Your task to perform on an android device: toggle wifi Image 0: 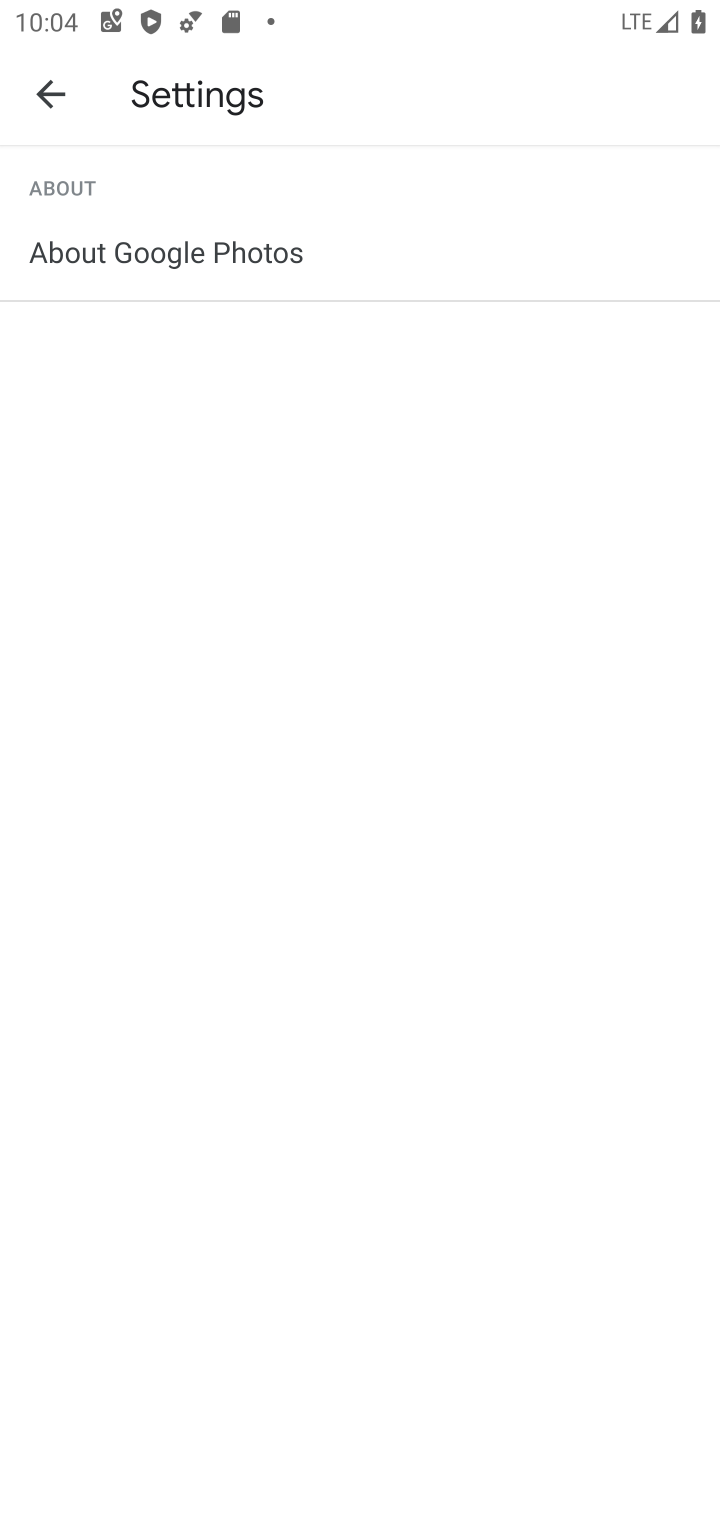
Step 0: press home button
Your task to perform on an android device: toggle wifi Image 1: 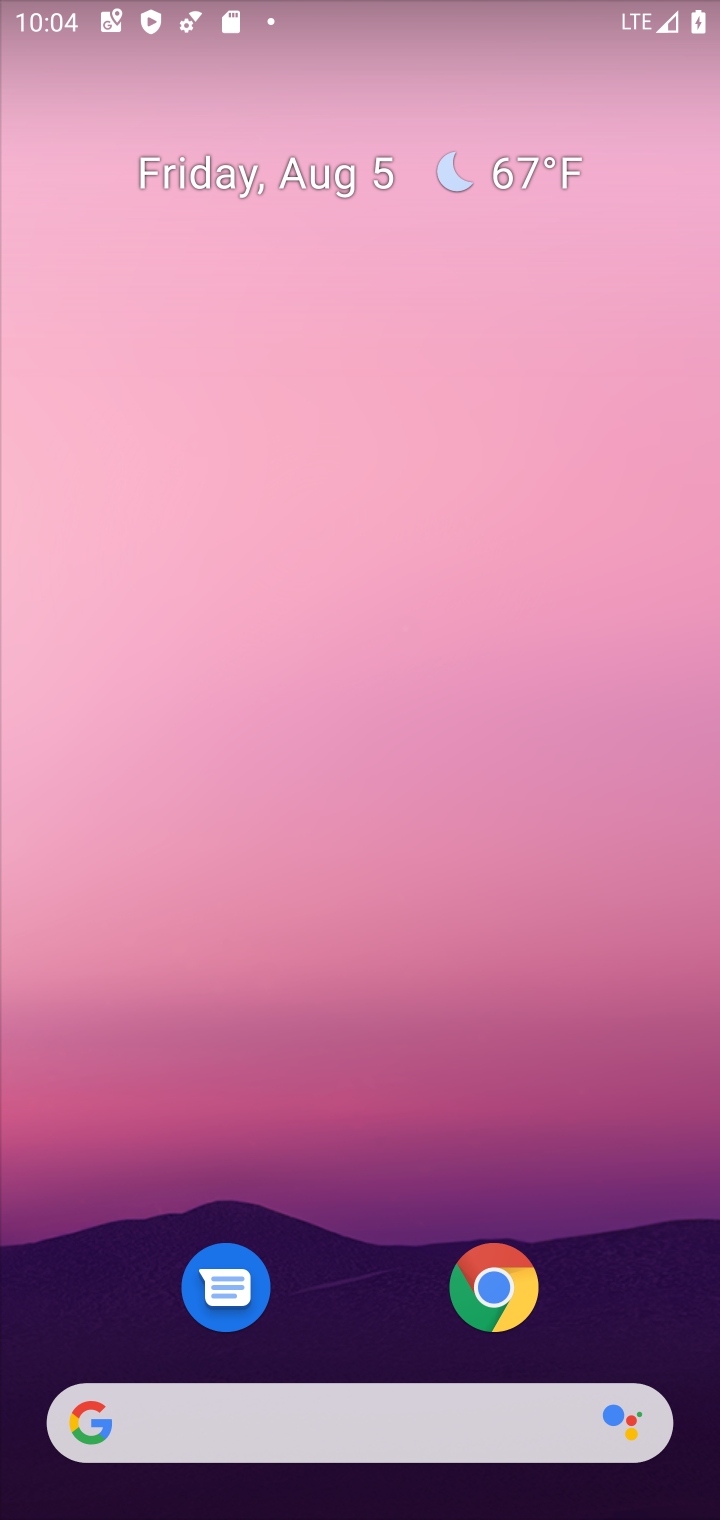
Step 1: press home button
Your task to perform on an android device: toggle wifi Image 2: 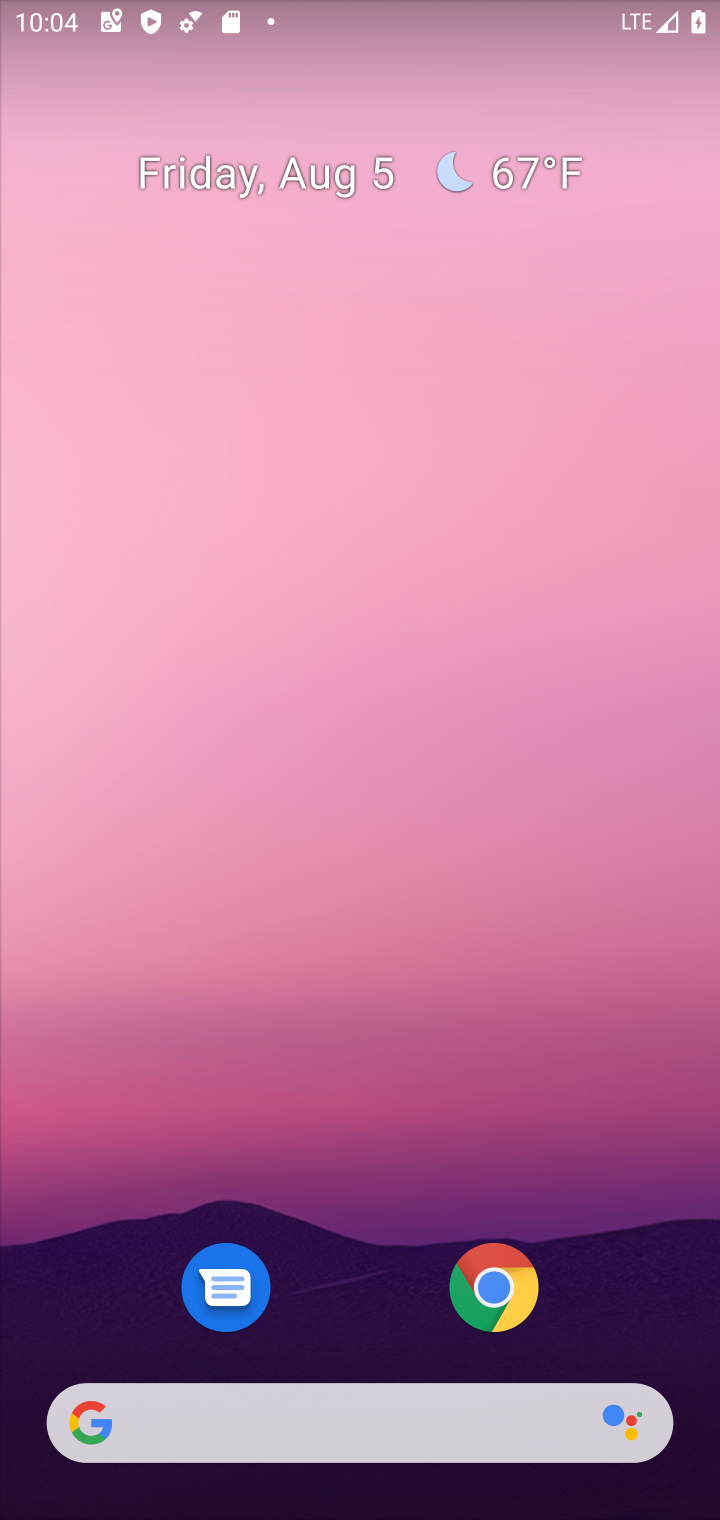
Step 2: drag from (382, 1217) to (321, 217)
Your task to perform on an android device: toggle wifi Image 3: 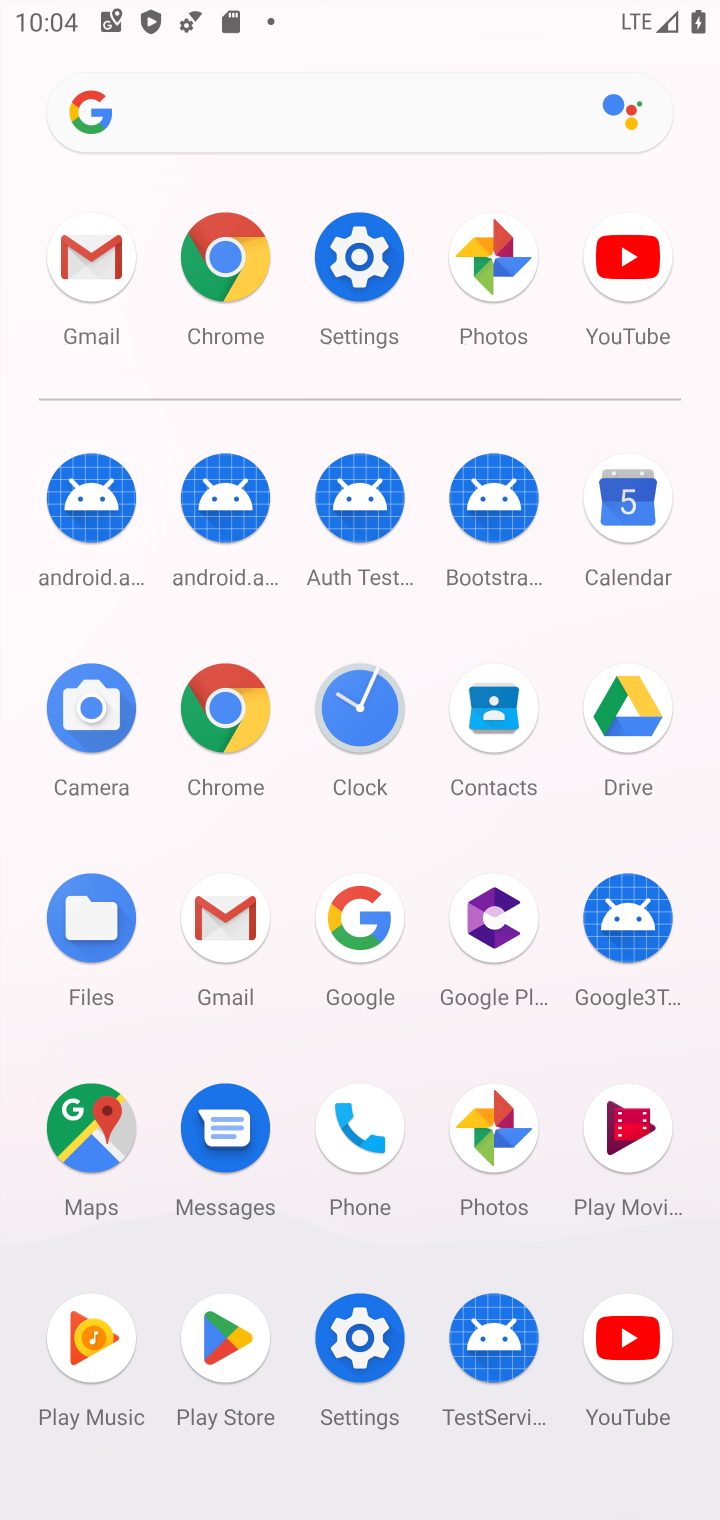
Step 3: click (349, 246)
Your task to perform on an android device: toggle wifi Image 4: 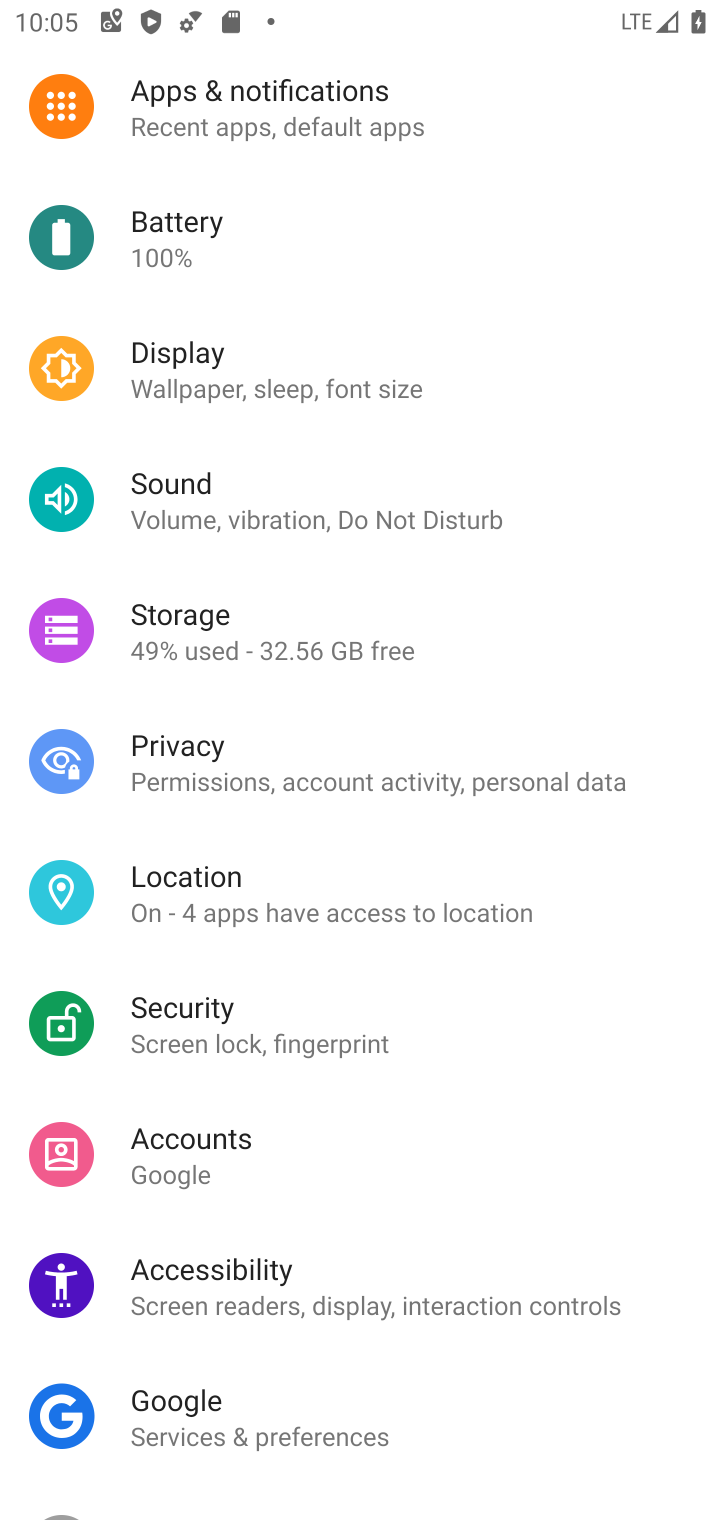
Step 4: drag from (202, 298) to (292, 932)
Your task to perform on an android device: toggle wifi Image 5: 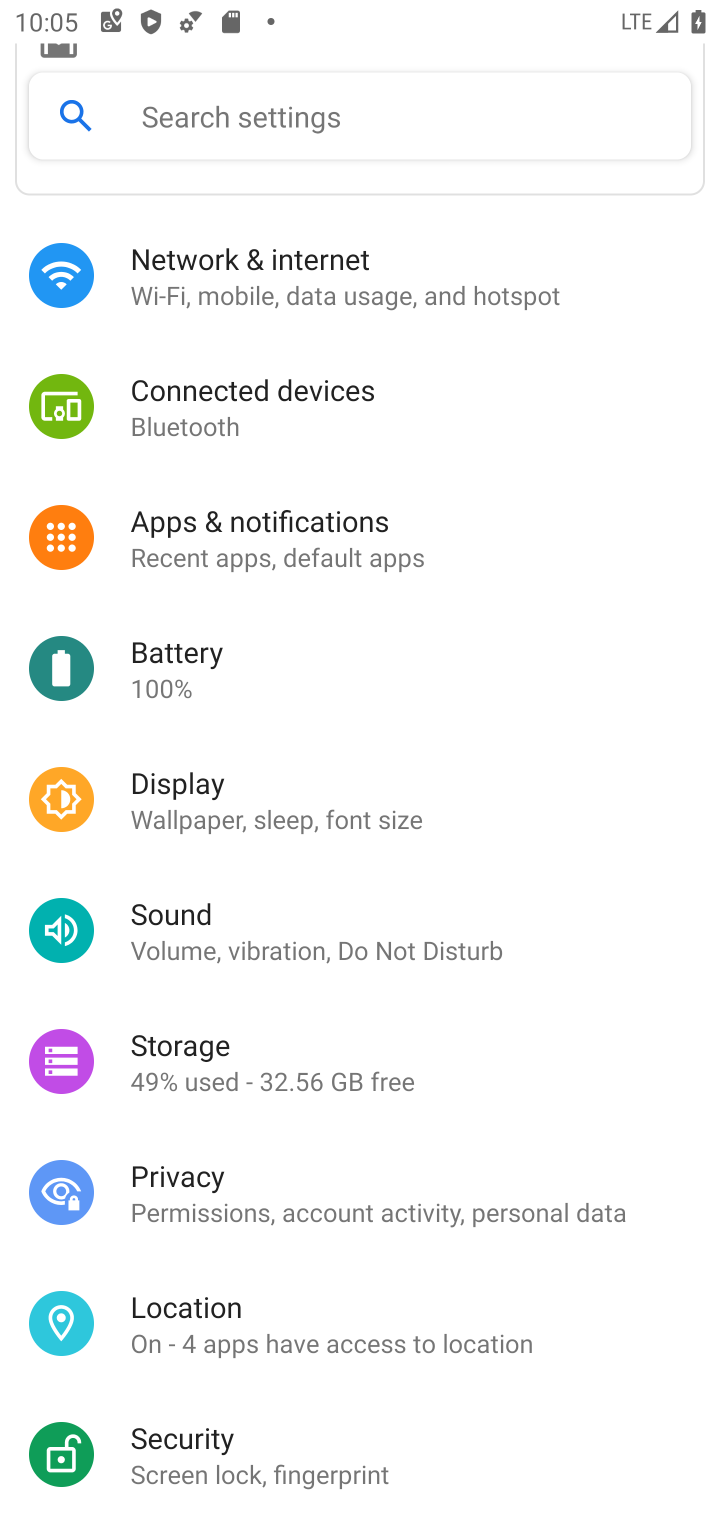
Step 5: click (235, 286)
Your task to perform on an android device: toggle wifi Image 6: 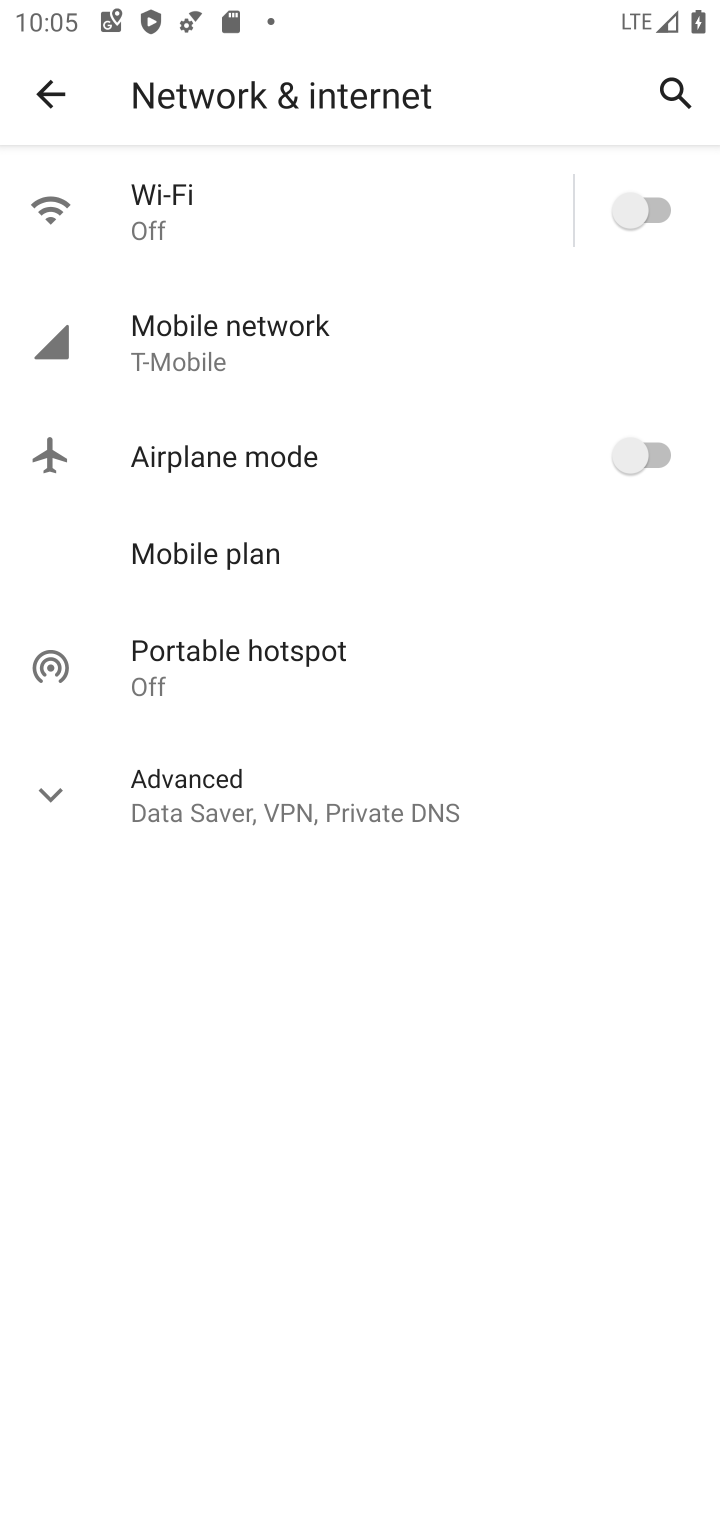
Step 6: click (646, 210)
Your task to perform on an android device: toggle wifi Image 7: 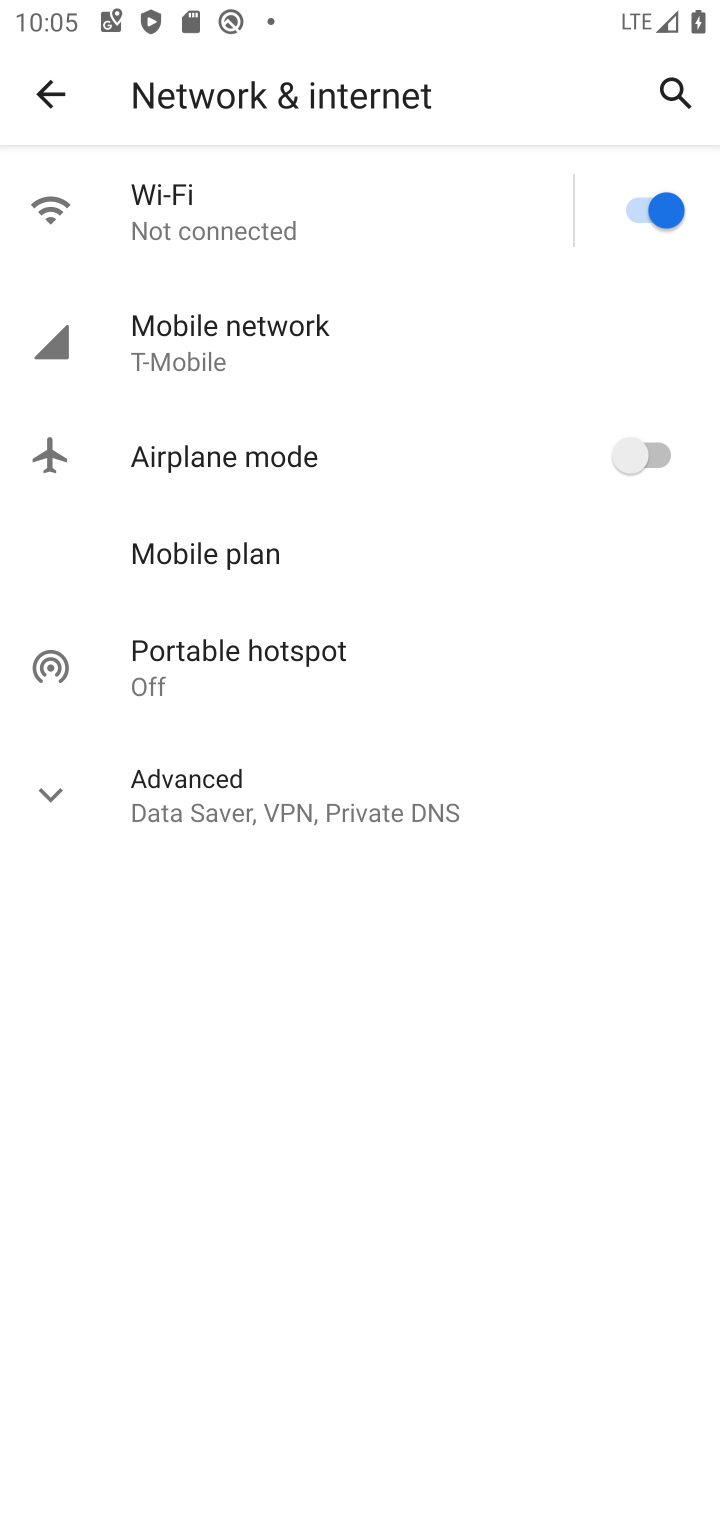
Step 7: task complete